Your task to perform on an android device: show emergency info Image 0: 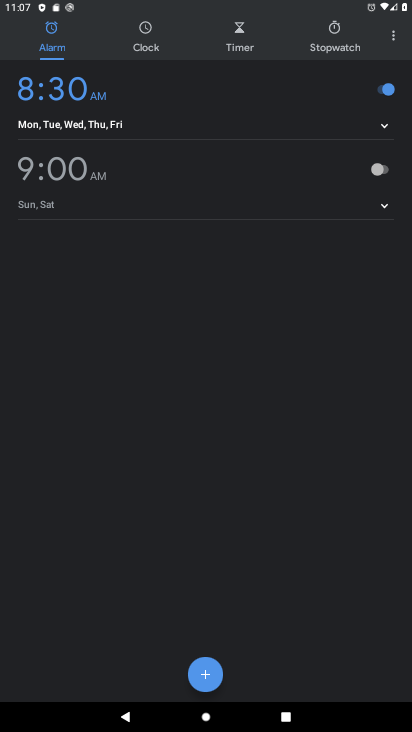
Step 0: press home button
Your task to perform on an android device: show emergency info Image 1: 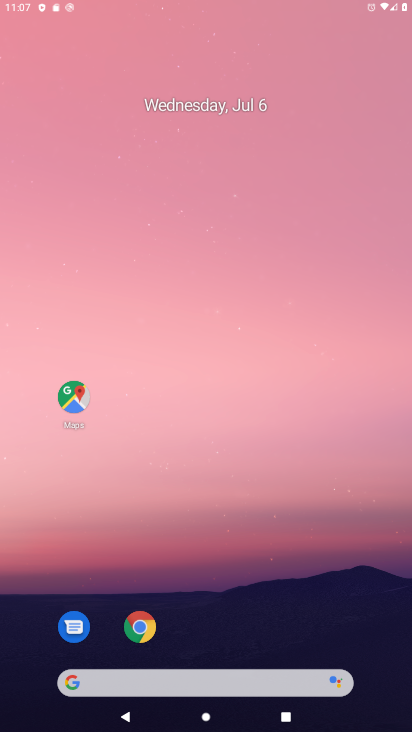
Step 1: drag from (257, 648) to (271, 96)
Your task to perform on an android device: show emergency info Image 2: 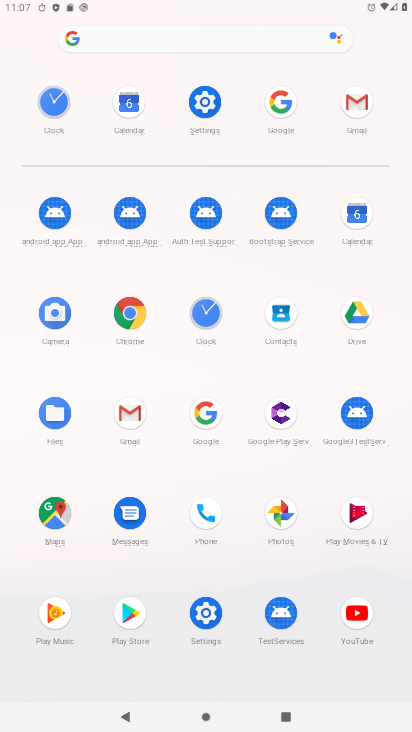
Step 2: click (201, 100)
Your task to perform on an android device: show emergency info Image 3: 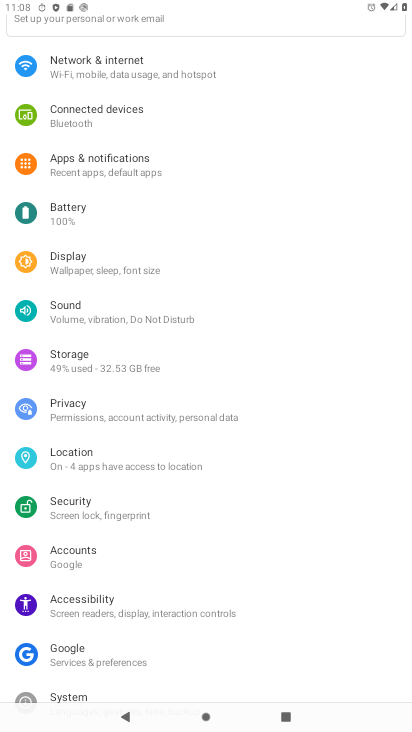
Step 3: drag from (187, 611) to (190, 241)
Your task to perform on an android device: show emergency info Image 4: 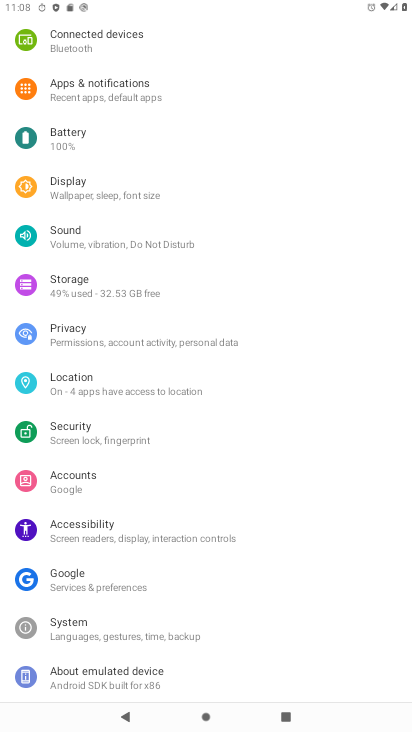
Step 4: drag from (177, 112) to (214, 130)
Your task to perform on an android device: show emergency info Image 5: 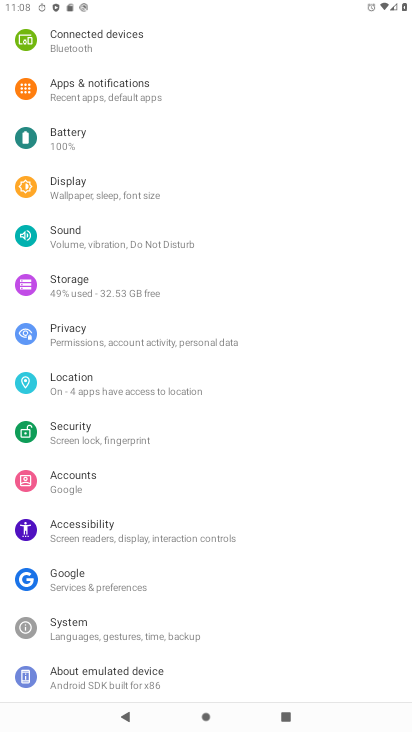
Step 5: click (108, 673)
Your task to perform on an android device: show emergency info Image 6: 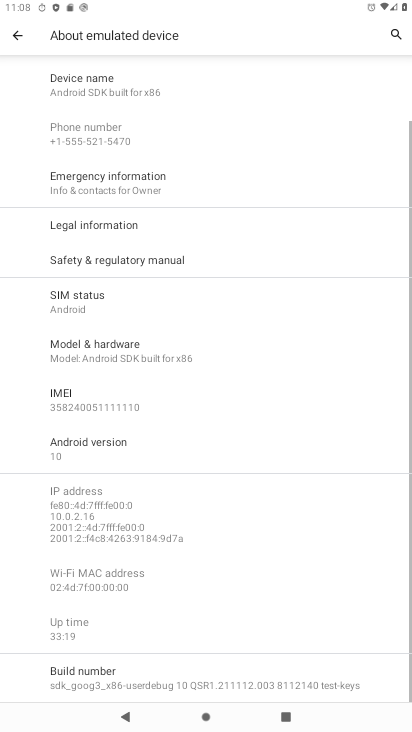
Step 6: click (150, 186)
Your task to perform on an android device: show emergency info Image 7: 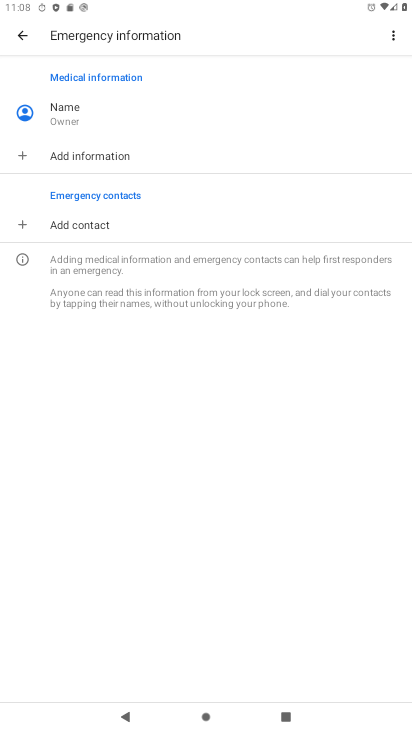
Step 7: task complete